Your task to perform on an android device: Open calendar and show me the fourth week of next month Image 0: 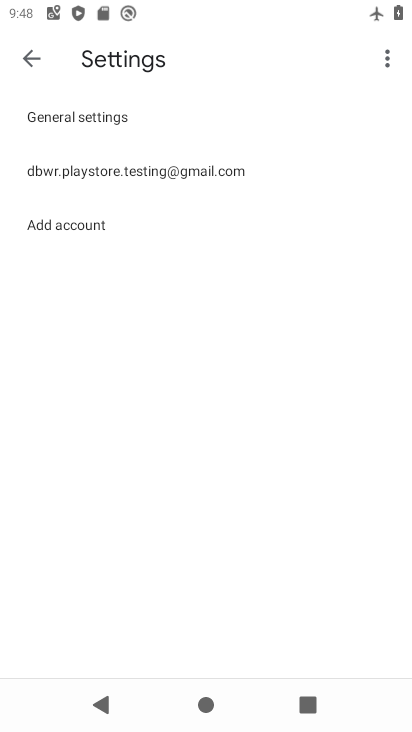
Step 0: press home button
Your task to perform on an android device: Open calendar and show me the fourth week of next month Image 1: 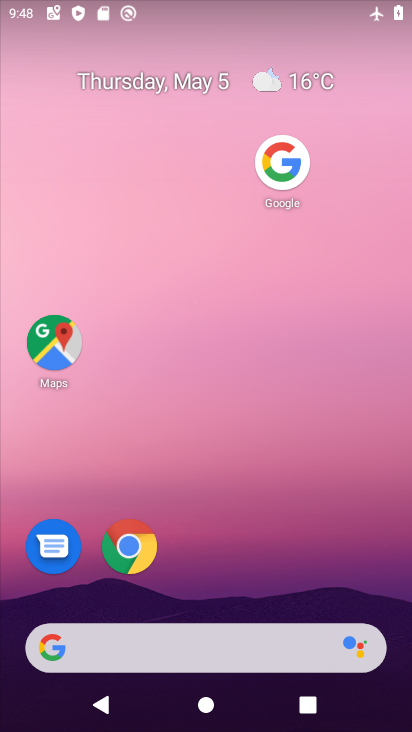
Step 1: drag from (227, 635) to (323, 267)
Your task to perform on an android device: Open calendar and show me the fourth week of next month Image 2: 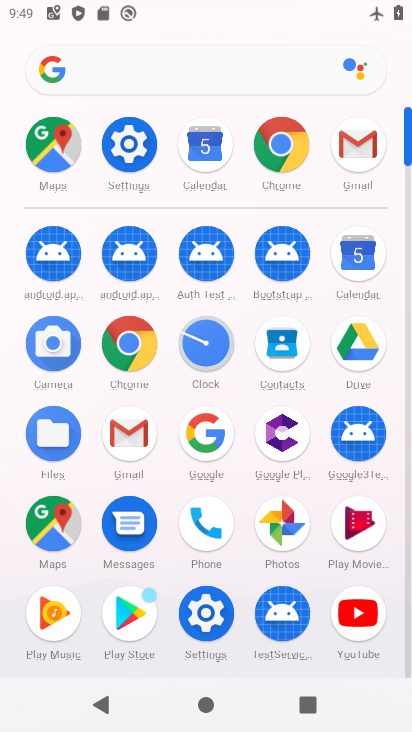
Step 2: click (354, 262)
Your task to perform on an android device: Open calendar and show me the fourth week of next month Image 3: 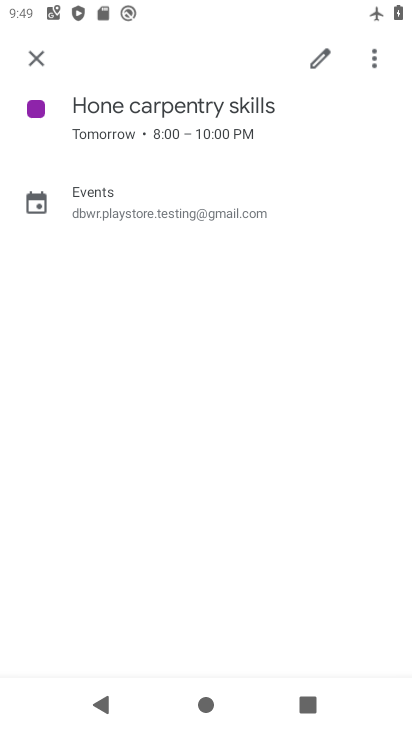
Step 3: click (35, 61)
Your task to perform on an android device: Open calendar and show me the fourth week of next month Image 4: 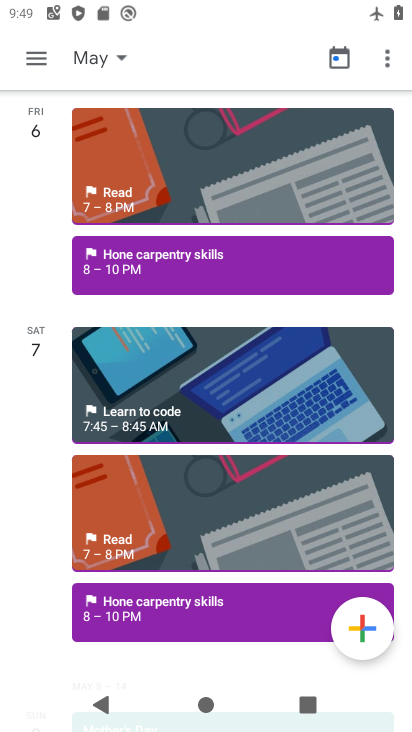
Step 4: click (88, 59)
Your task to perform on an android device: Open calendar and show me the fourth week of next month Image 5: 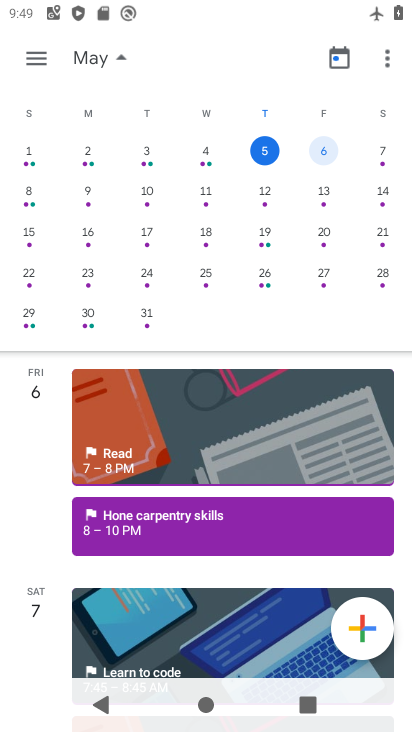
Step 5: drag from (384, 255) to (46, 203)
Your task to perform on an android device: Open calendar and show me the fourth week of next month Image 6: 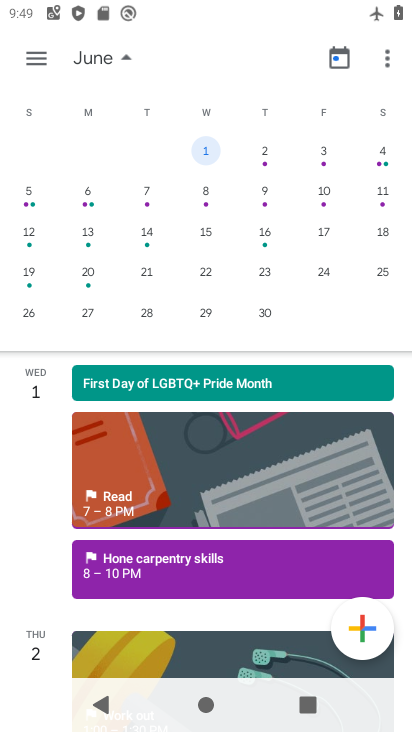
Step 6: click (26, 271)
Your task to perform on an android device: Open calendar and show me the fourth week of next month Image 7: 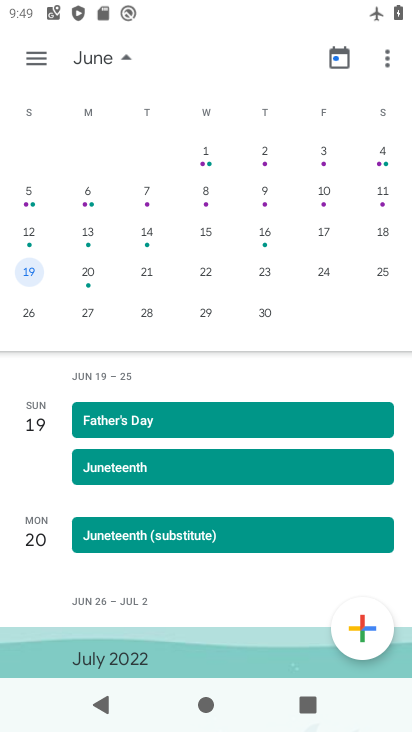
Step 7: click (40, 54)
Your task to perform on an android device: Open calendar and show me the fourth week of next month Image 8: 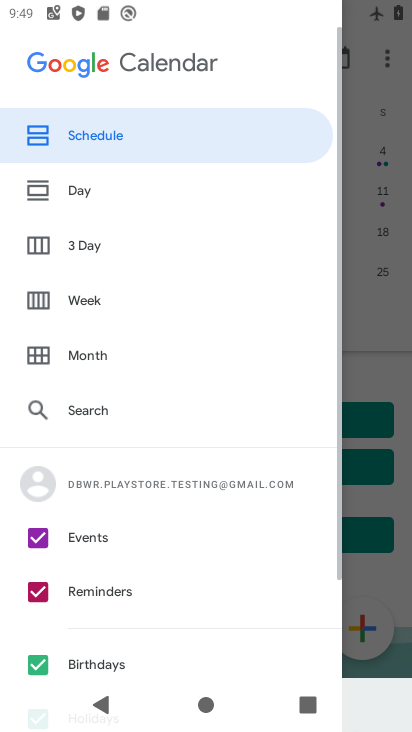
Step 8: click (80, 304)
Your task to perform on an android device: Open calendar and show me the fourth week of next month Image 9: 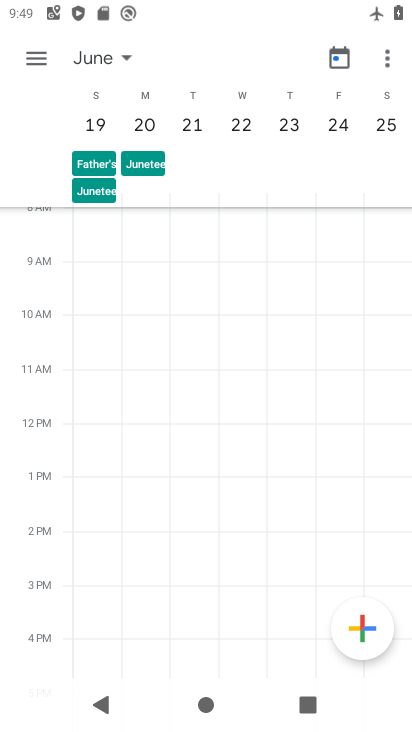
Step 9: task complete